Your task to perform on an android device: Go to network settings Image 0: 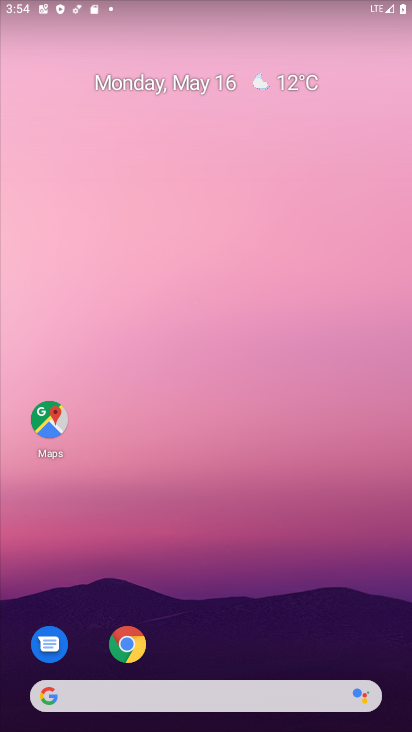
Step 0: drag from (269, 567) to (288, 54)
Your task to perform on an android device: Go to network settings Image 1: 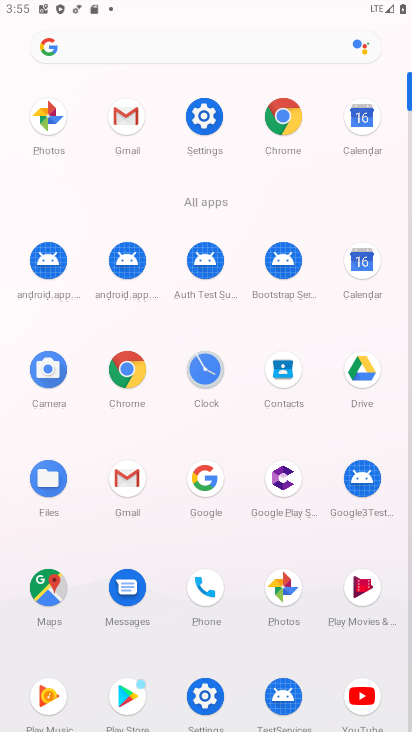
Step 1: click (206, 121)
Your task to perform on an android device: Go to network settings Image 2: 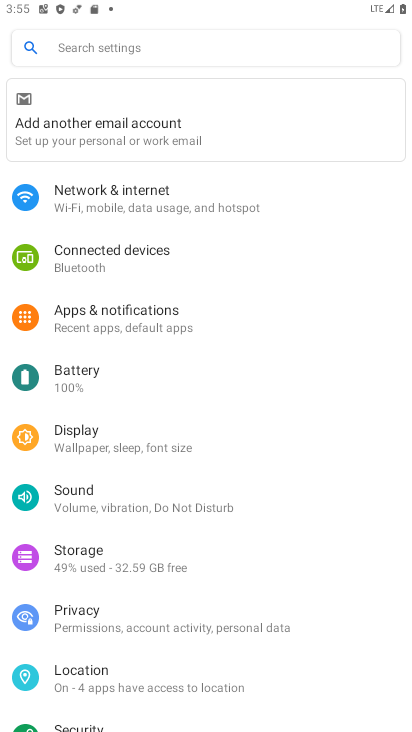
Step 2: click (167, 193)
Your task to perform on an android device: Go to network settings Image 3: 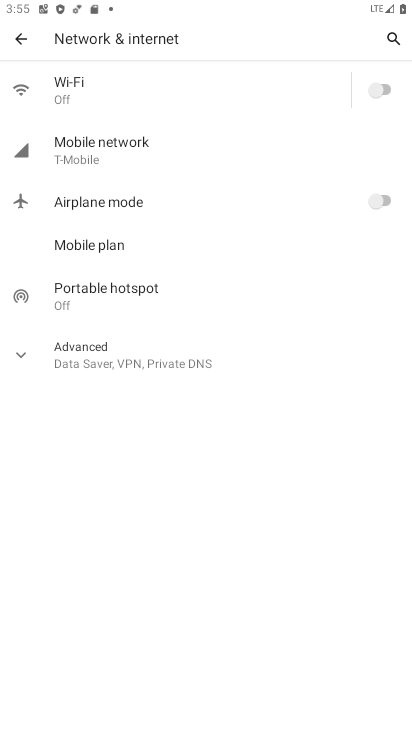
Step 3: task complete